Your task to perform on an android device: Go to ESPN.com Image 0: 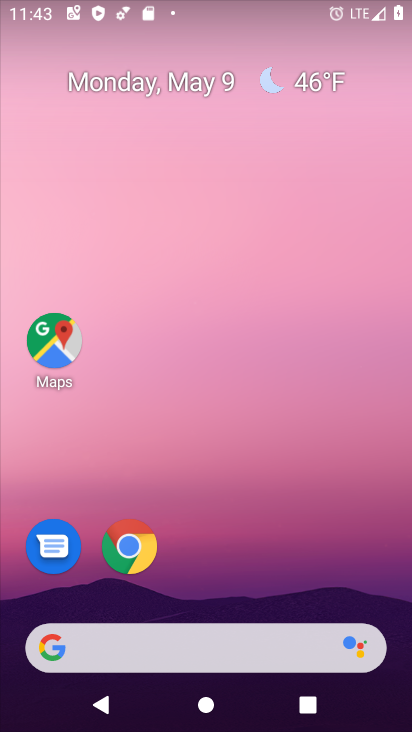
Step 0: click (135, 544)
Your task to perform on an android device: Go to ESPN.com Image 1: 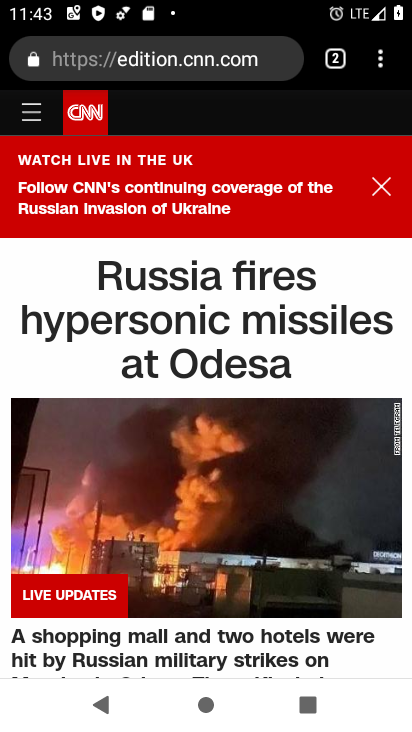
Step 1: click (168, 64)
Your task to perform on an android device: Go to ESPN.com Image 2: 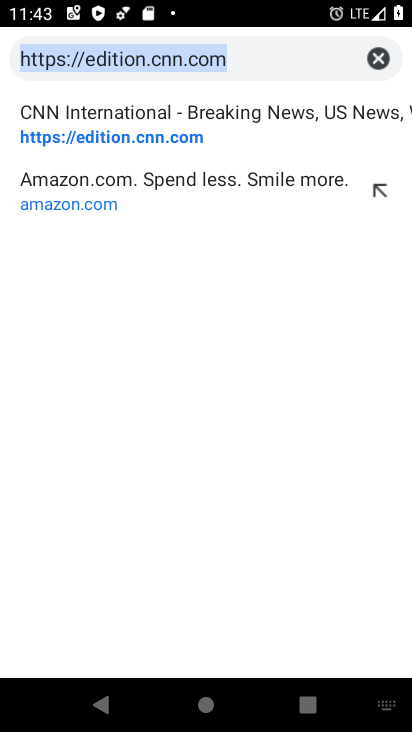
Step 2: click (377, 57)
Your task to perform on an android device: Go to ESPN.com Image 3: 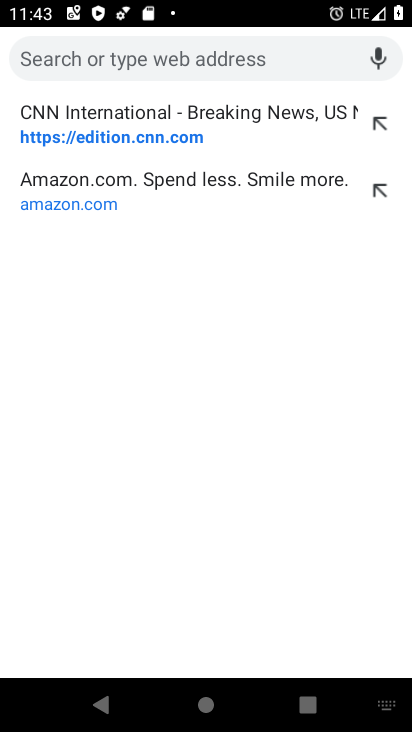
Step 3: type "cnn.com"
Your task to perform on an android device: Go to ESPN.com Image 4: 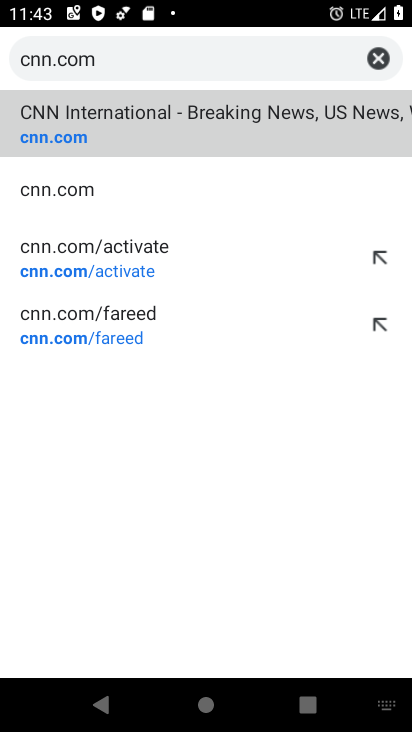
Step 4: click (379, 67)
Your task to perform on an android device: Go to ESPN.com Image 5: 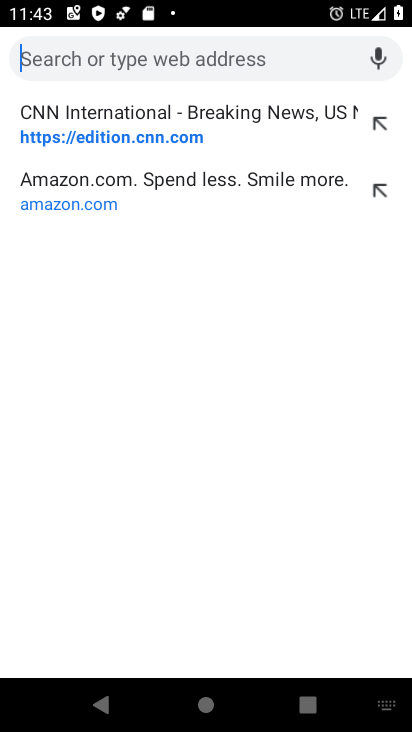
Step 5: type "espn.com"
Your task to perform on an android device: Go to ESPN.com Image 6: 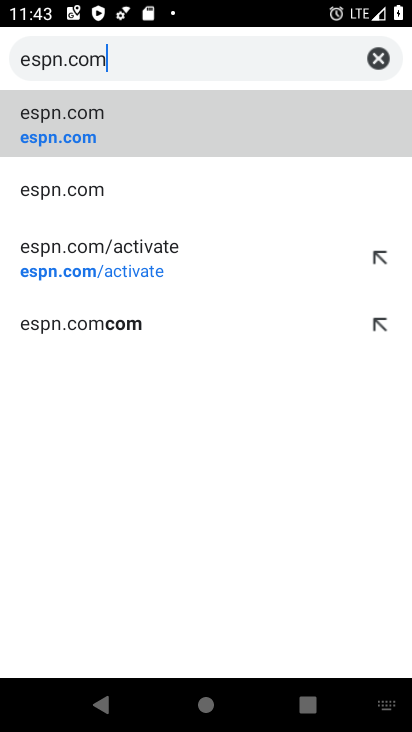
Step 6: click (58, 135)
Your task to perform on an android device: Go to ESPN.com Image 7: 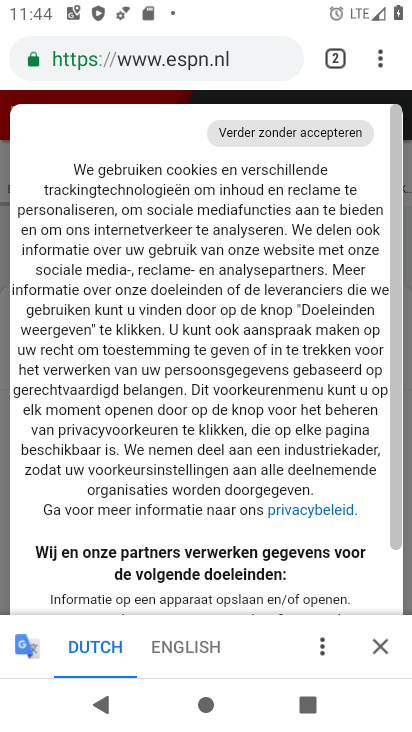
Step 7: task complete